Your task to perform on an android device: toggle data saver in the chrome app Image 0: 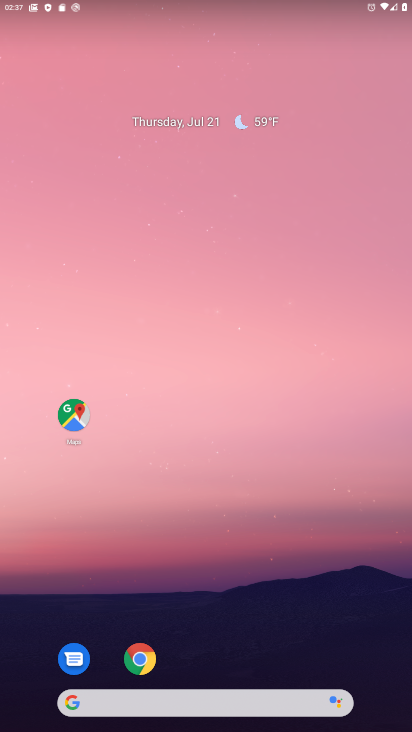
Step 0: drag from (302, 627) to (238, 106)
Your task to perform on an android device: toggle data saver in the chrome app Image 1: 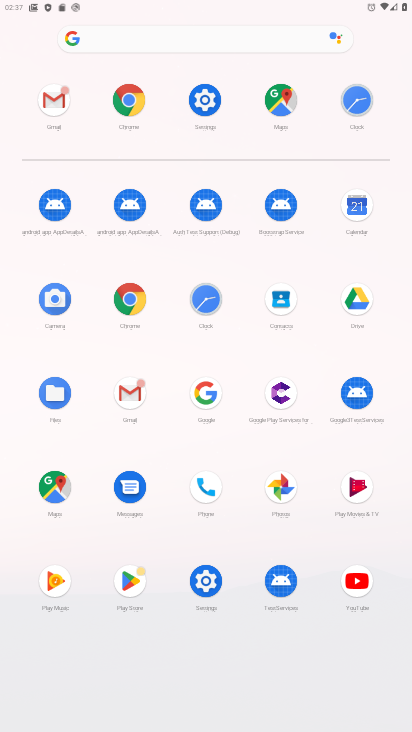
Step 1: click (128, 294)
Your task to perform on an android device: toggle data saver in the chrome app Image 2: 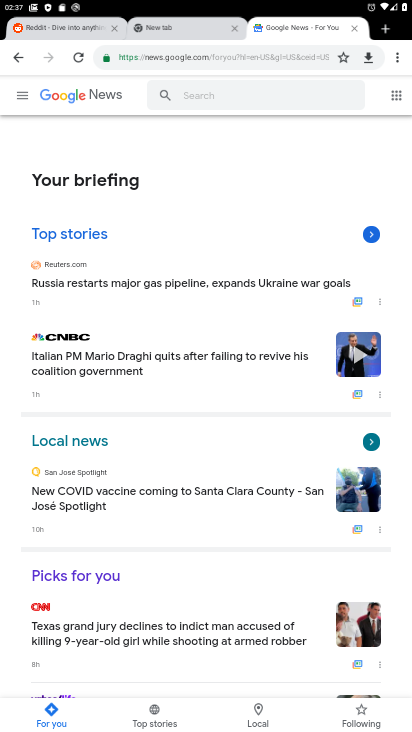
Step 2: drag from (397, 59) to (294, 377)
Your task to perform on an android device: toggle data saver in the chrome app Image 3: 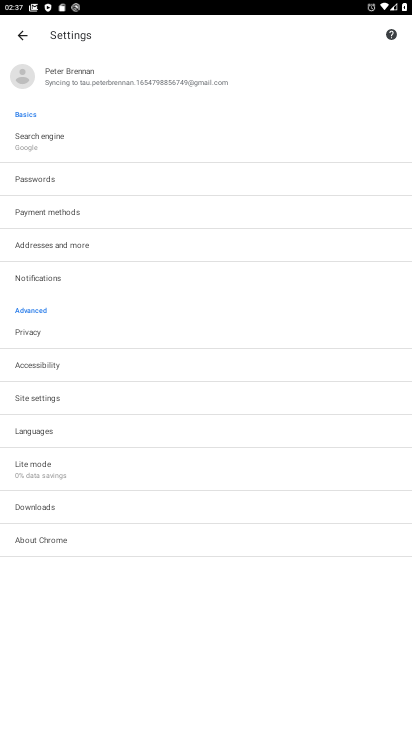
Step 3: click (45, 464)
Your task to perform on an android device: toggle data saver in the chrome app Image 4: 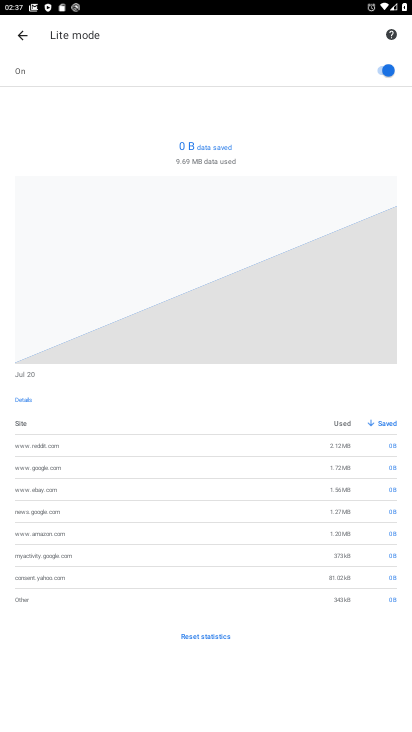
Step 4: click (381, 66)
Your task to perform on an android device: toggle data saver in the chrome app Image 5: 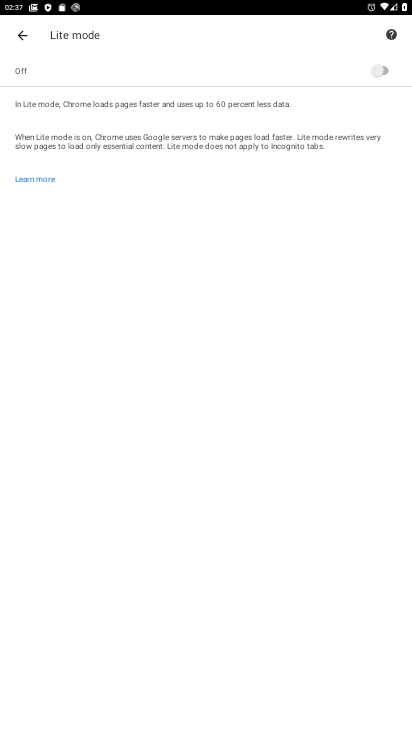
Step 5: task complete